Your task to perform on an android device: change the clock display to show seconds Image 0: 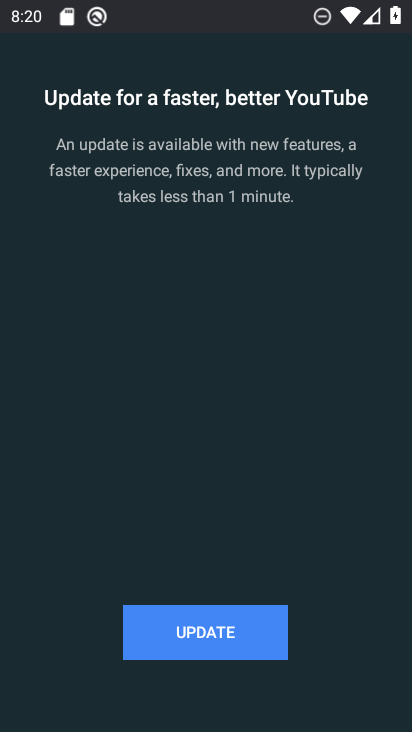
Step 0: press home button
Your task to perform on an android device: change the clock display to show seconds Image 1: 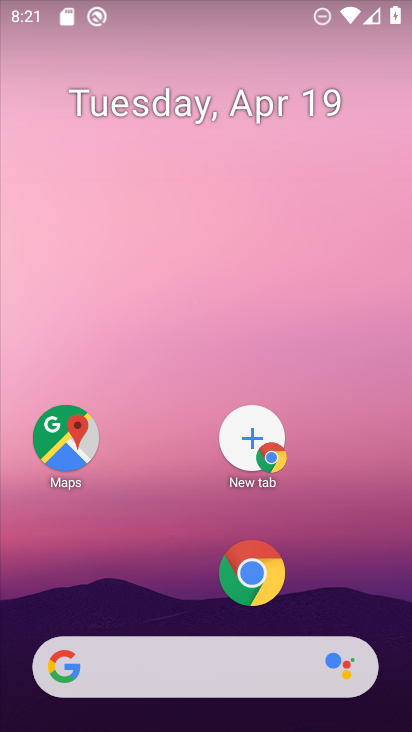
Step 1: drag from (170, 605) to (182, 20)
Your task to perform on an android device: change the clock display to show seconds Image 2: 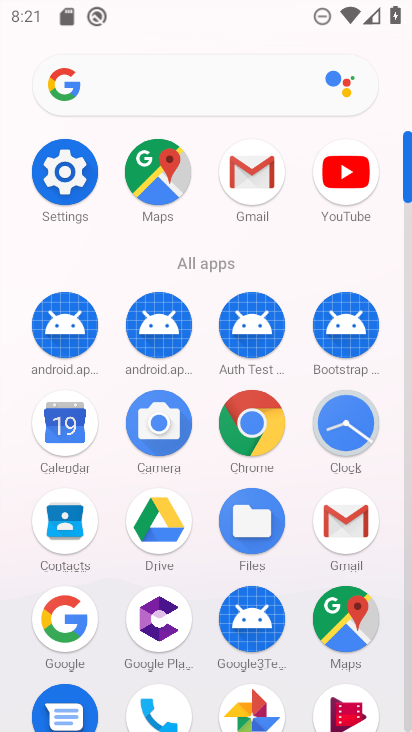
Step 2: click (343, 432)
Your task to perform on an android device: change the clock display to show seconds Image 3: 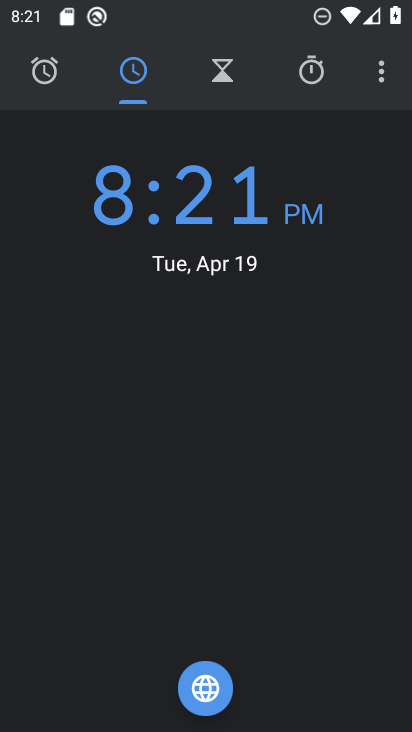
Step 3: click (377, 81)
Your task to perform on an android device: change the clock display to show seconds Image 4: 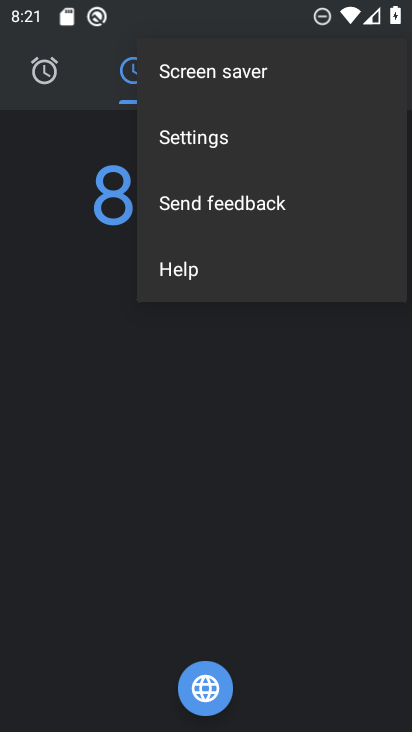
Step 4: click (249, 124)
Your task to perform on an android device: change the clock display to show seconds Image 5: 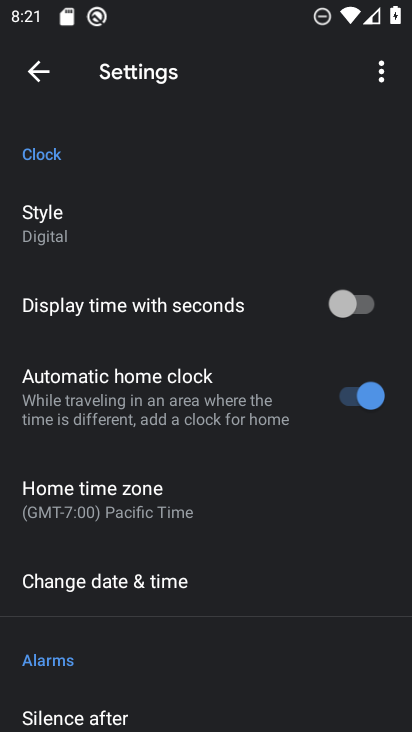
Step 5: click (371, 302)
Your task to perform on an android device: change the clock display to show seconds Image 6: 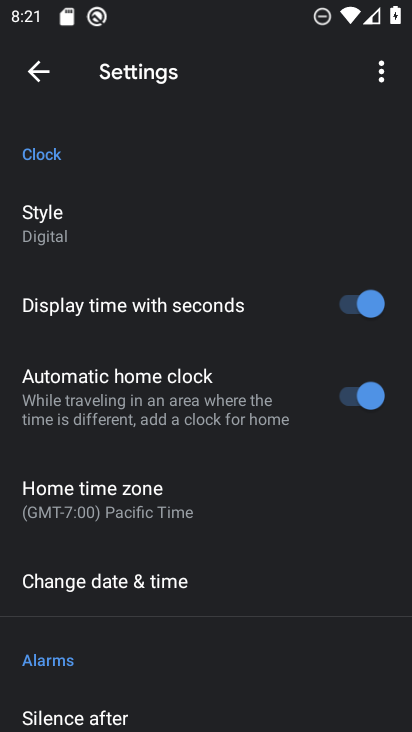
Step 6: task complete